Your task to perform on an android device: move a message to another label in the gmail app Image 0: 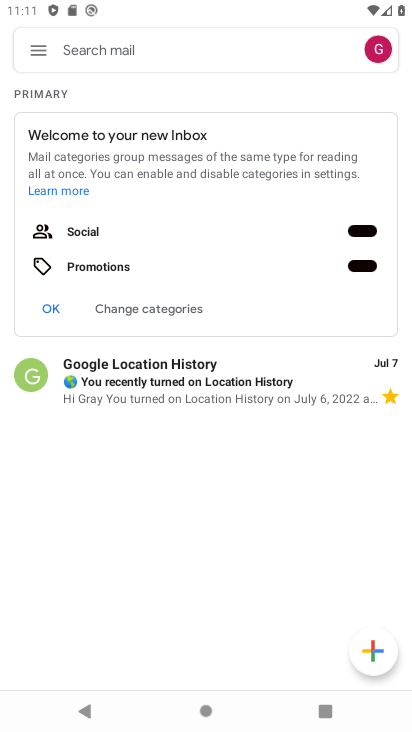
Step 0: click (196, 382)
Your task to perform on an android device: move a message to another label in the gmail app Image 1: 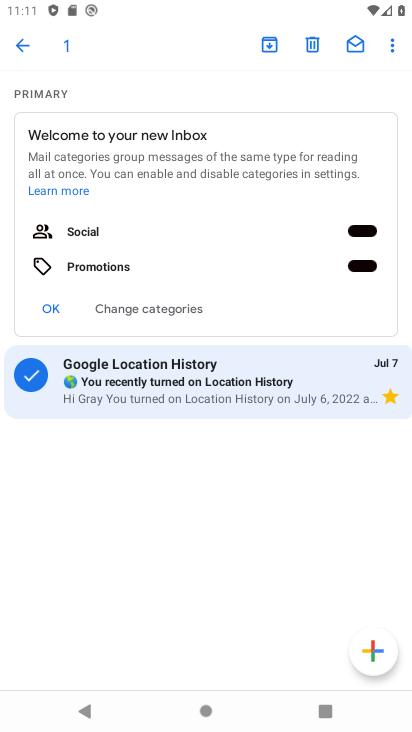
Step 1: click (392, 45)
Your task to perform on an android device: move a message to another label in the gmail app Image 2: 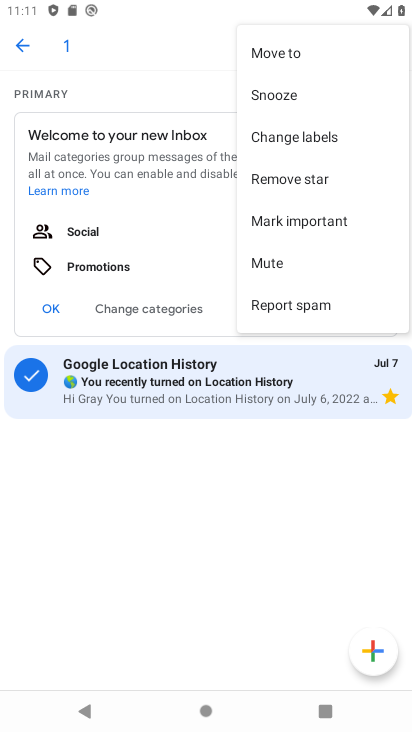
Step 2: click (283, 54)
Your task to perform on an android device: move a message to another label in the gmail app Image 3: 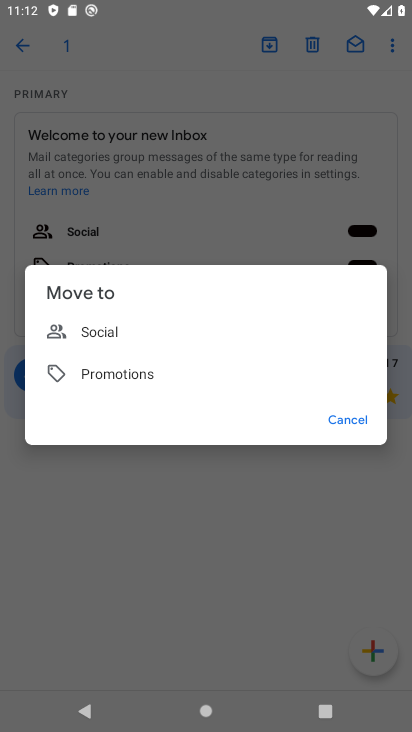
Step 3: click (104, 329)
Your task to perform on an android device: move a message to another label in the gmail app Image 4: 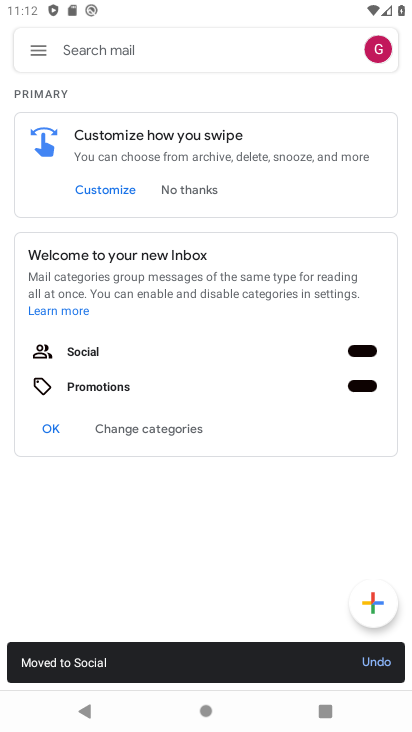
Step 4: task complete